Your task to perform on an android device: When is my next meeting? Image 0: 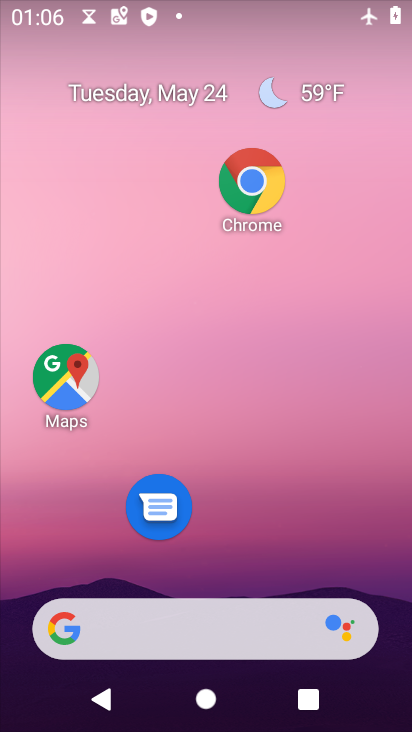
Step 0: drag from (254, 523) to (286, 251)
Your task to perform on an android device: When is my next meeting? Image 1: 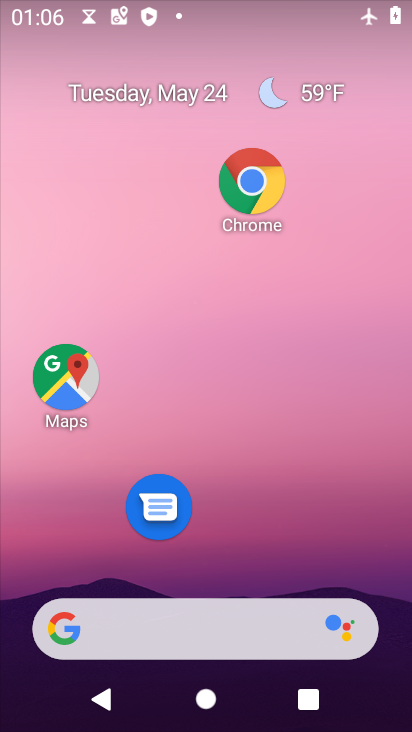
Step 1: drag from (247, 534) to (305, 214)
Your task to perform on an android device: When is my next meeting? Image 2: 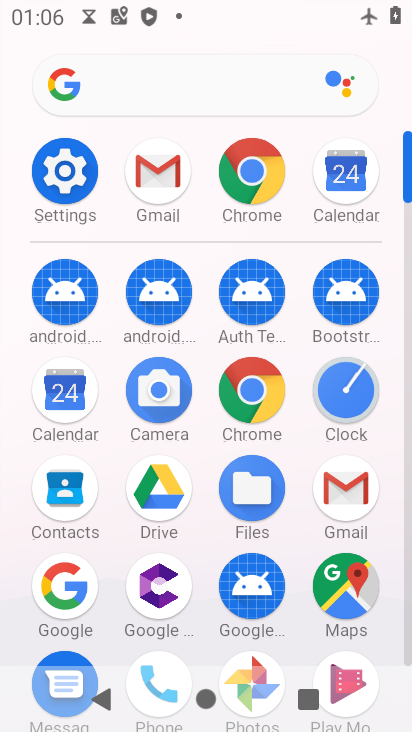
Step 2: click (60, 399)
Your task to perform on an android device: When is my next meeting? Image 3: 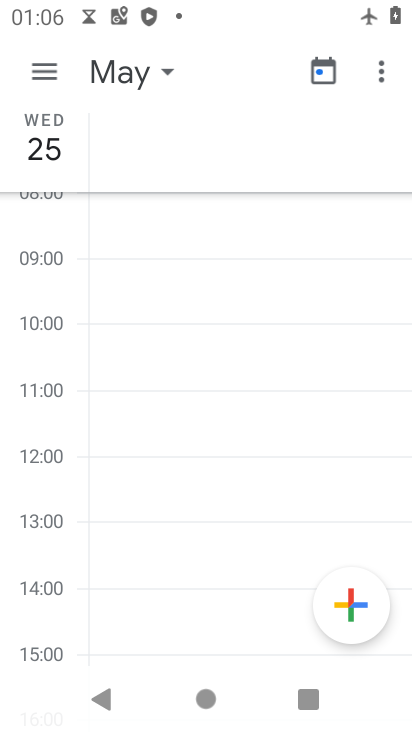
Step 3: click (36, 73)
Your task to perform on an android device: When is my next meeting? Image 4: 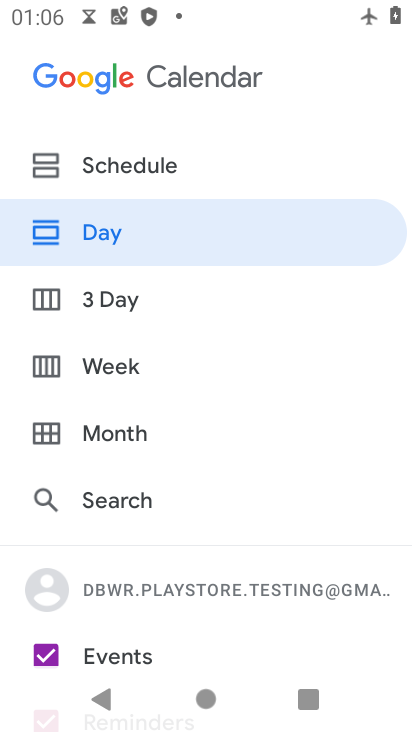
Step 4: click (129, 236)
Your task to perform on an android device: When is my next meeting? Image 5: 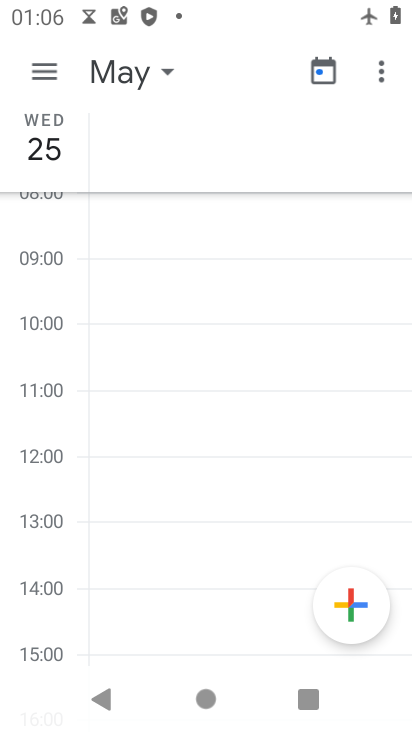
Step 5: task complete